Your task to perform on an android device: install app "AliExpress" Image 0: 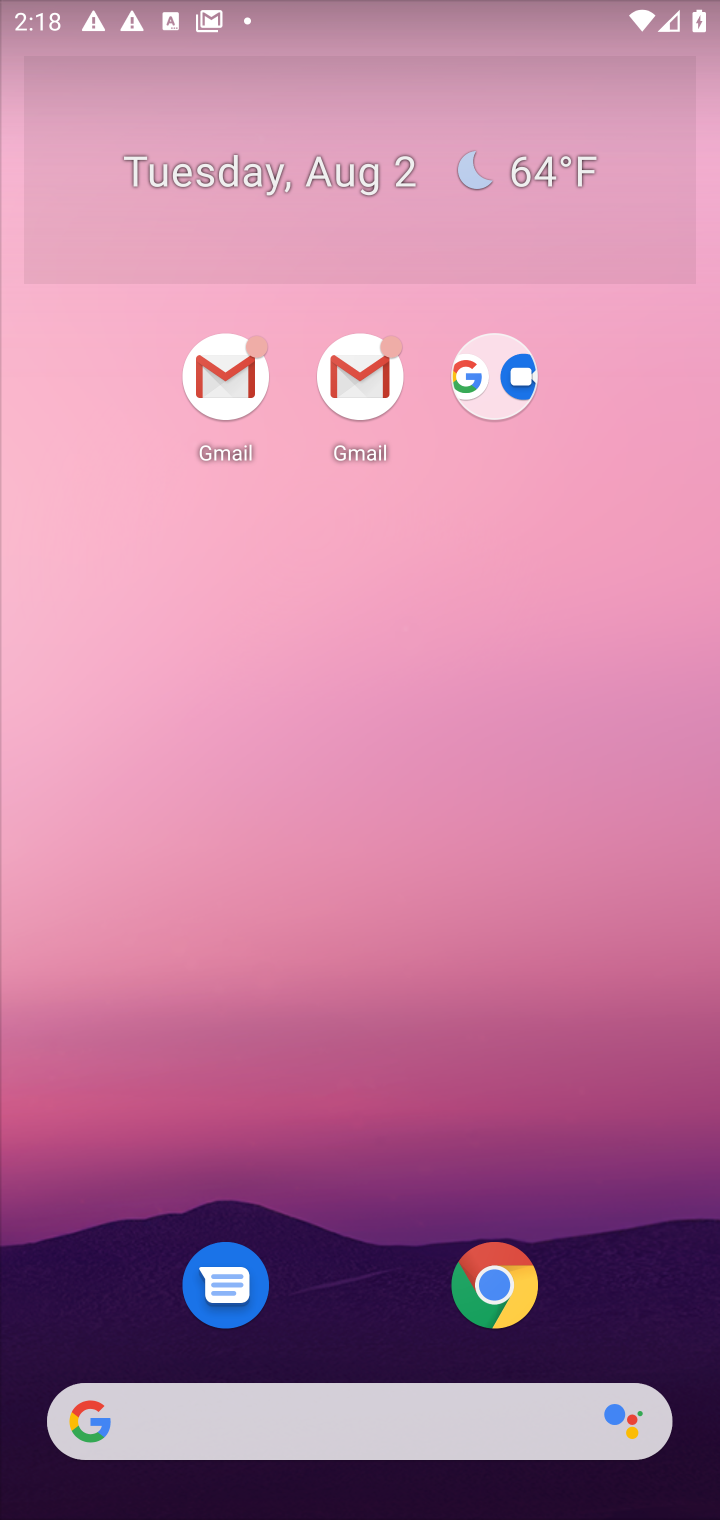
Step 0: drag from (623, 1266) to (546, 228)
Your task to perform on an android device: install app "AliExpress" Image 1: 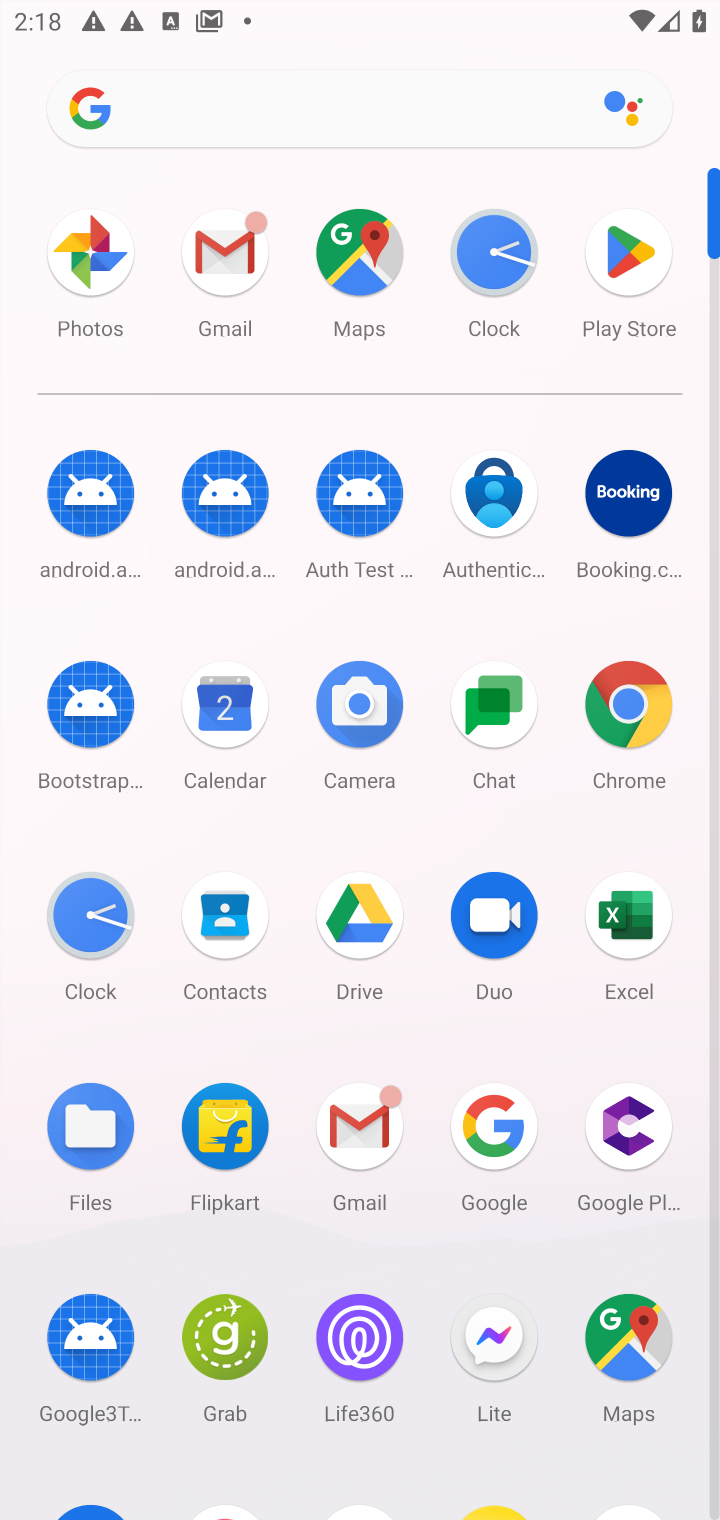
Step 1: drag from (421, 1081) to (437, 454)
Your task to perform on an android device: install app "AliExpress" Image 2: 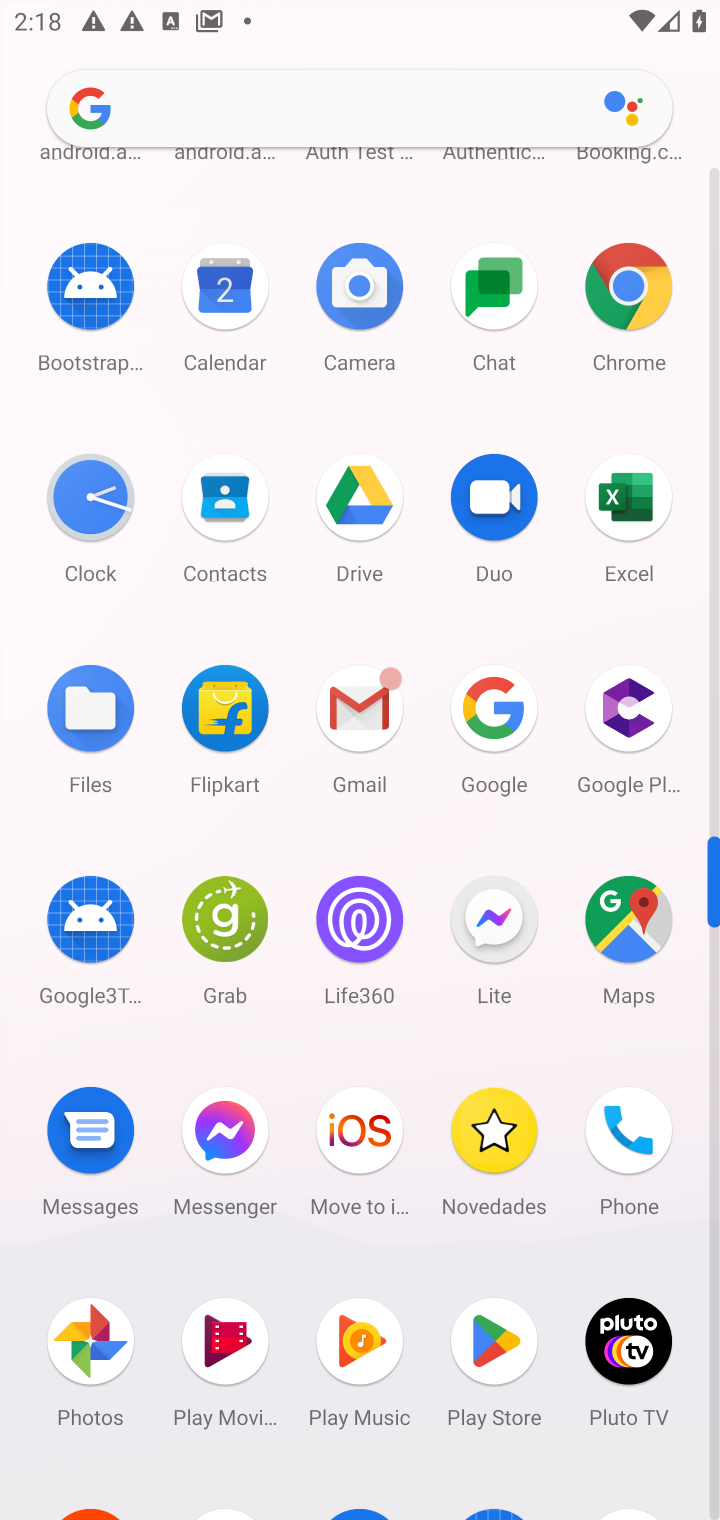
Step 2: click (493, 1339)
Your task to perform on an android device: install app "AliExpress" Image 3: 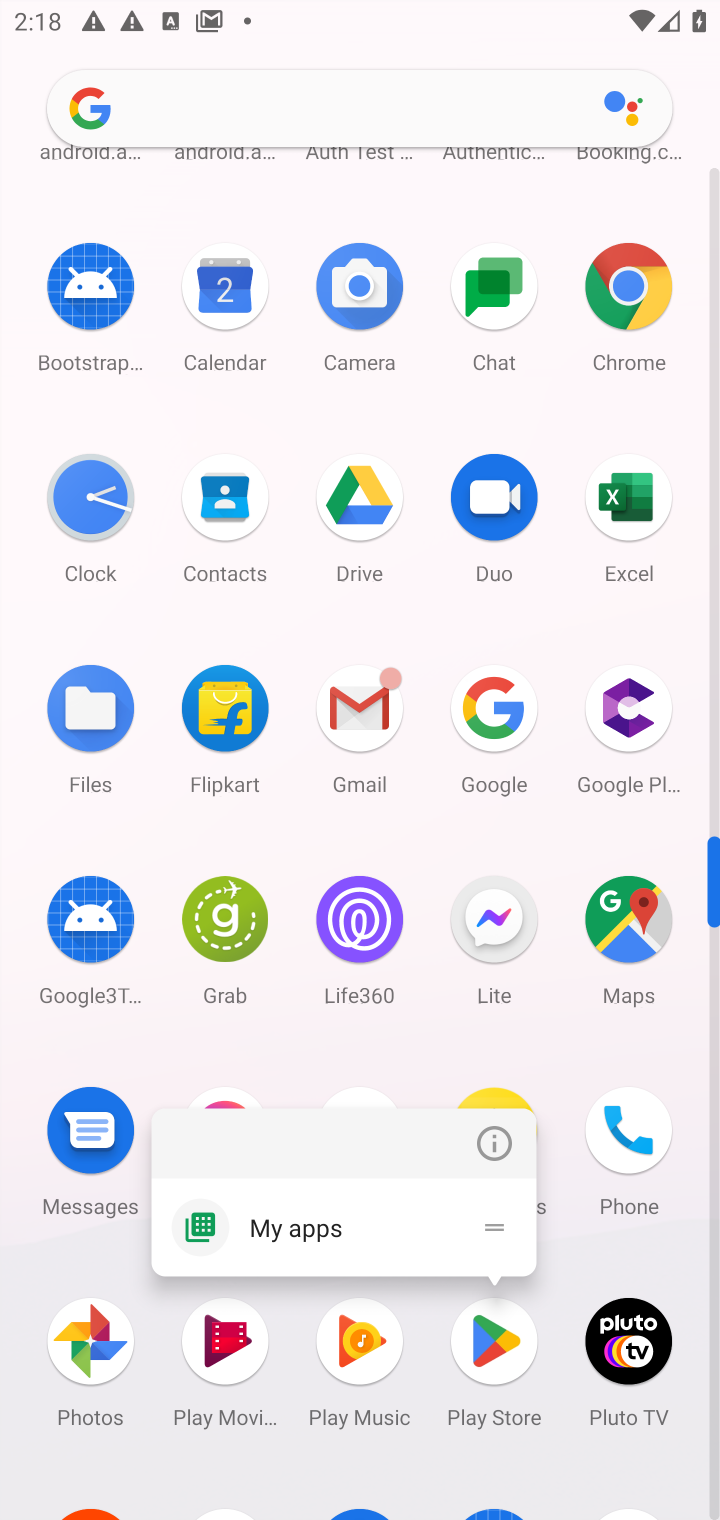
Step 3: click (493, 1339)
Your task to perform on an android device: install app "AliExpress" Image 4: 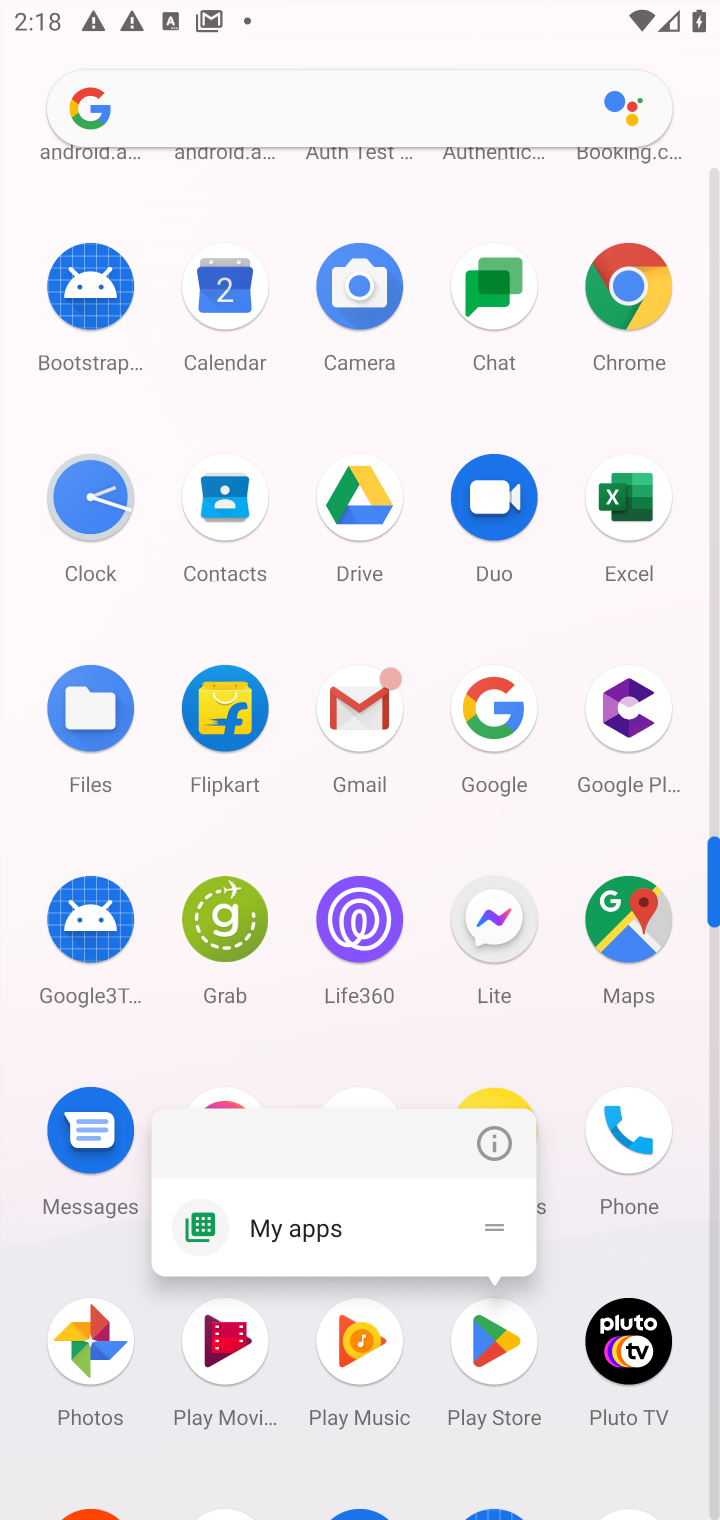
Step 4: click (493, 1339)
Your task to perform on an android device: install app "AliExpress" Image 5: 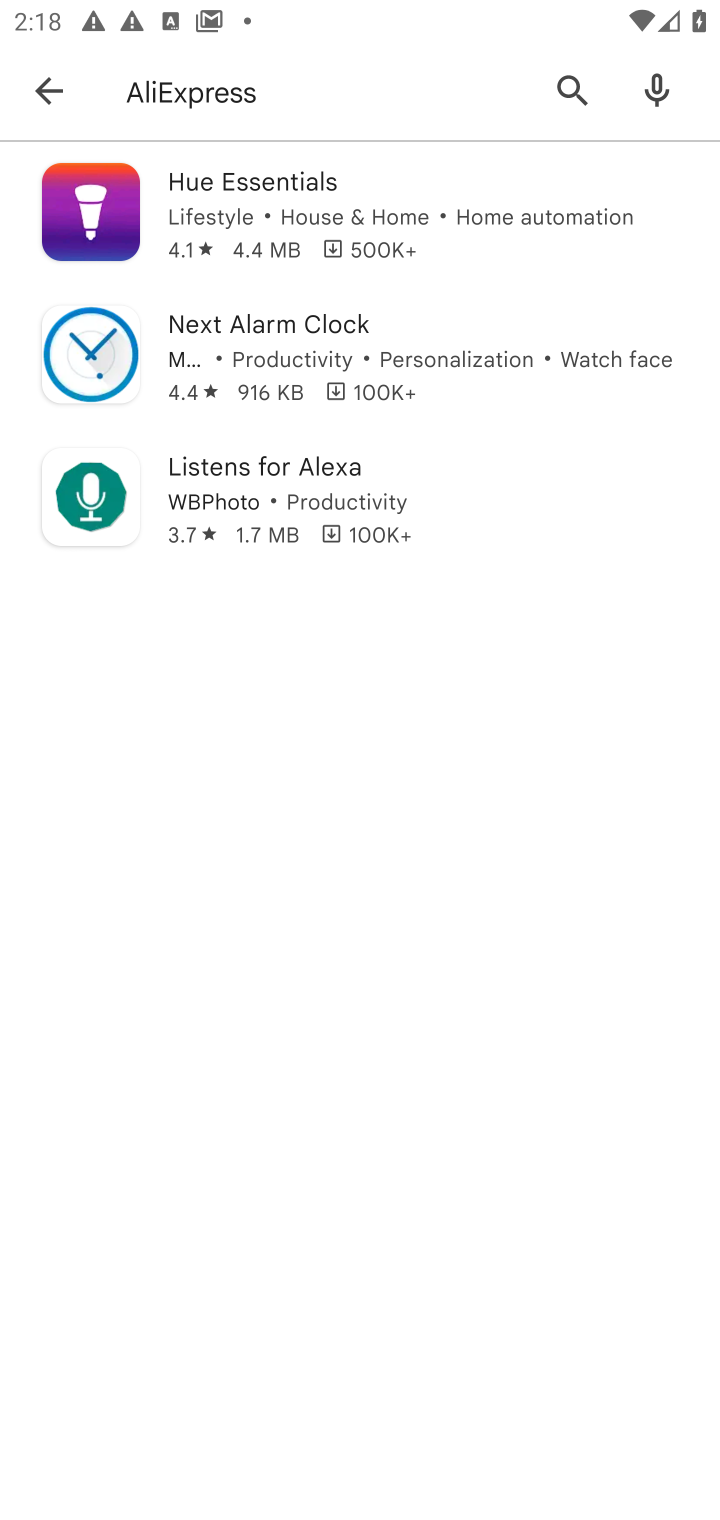
Step 5: click (383, 89)
Your task to perform on an android device: install app "AliExpress" Image 6: 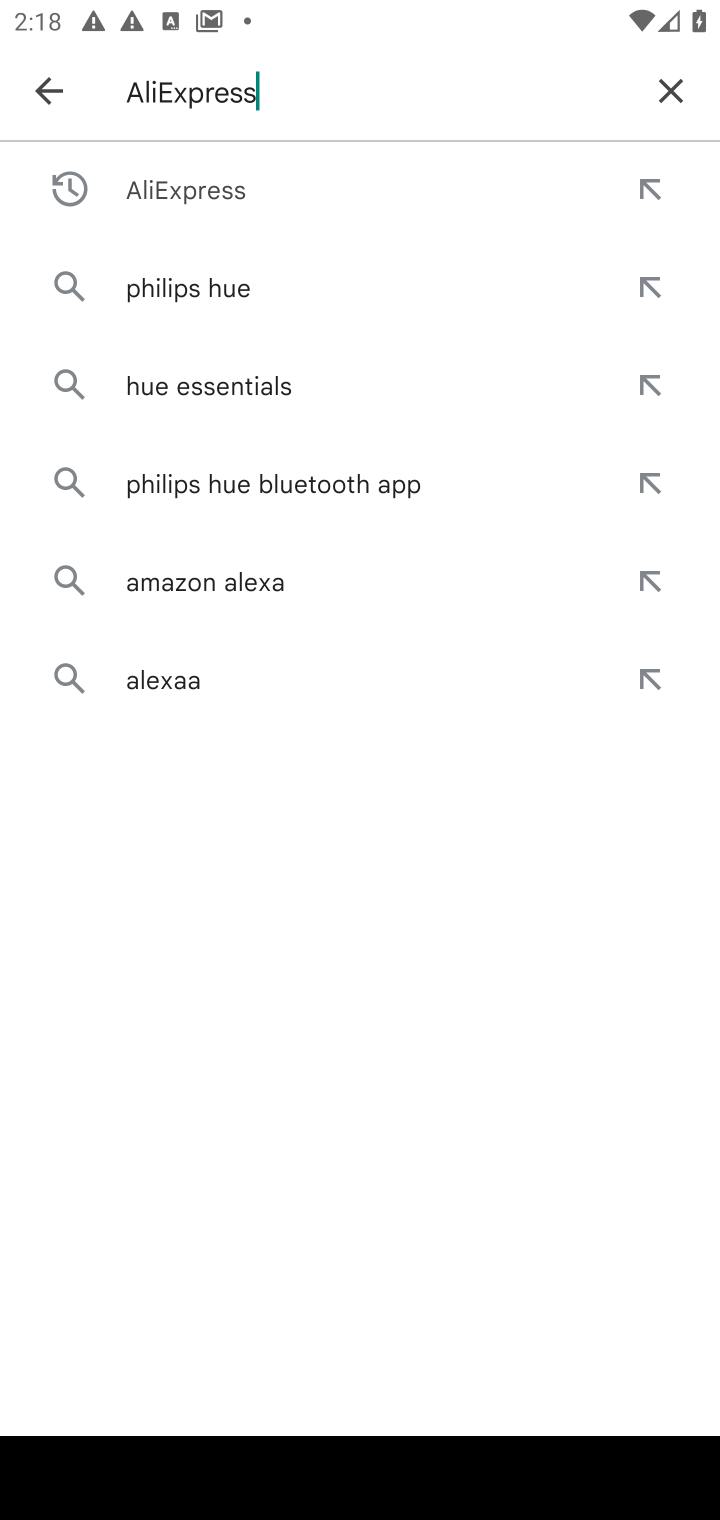
Step 6: click (670, 106)
Your task to perform on an android device: install app "AliExpress" Image 7: 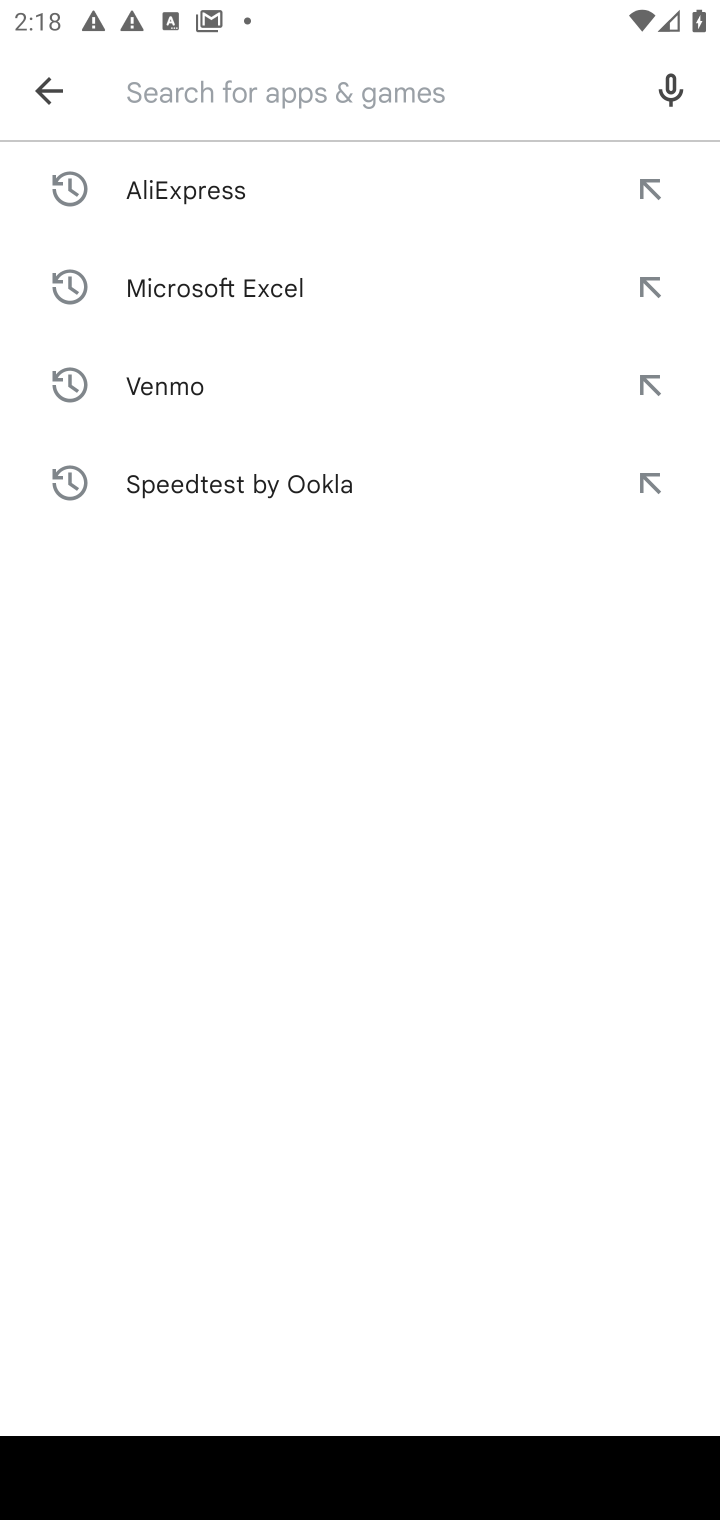
Step 7: type "AliExpress"
Your task to perform on an android device: install app "AliExpress" Image 8: 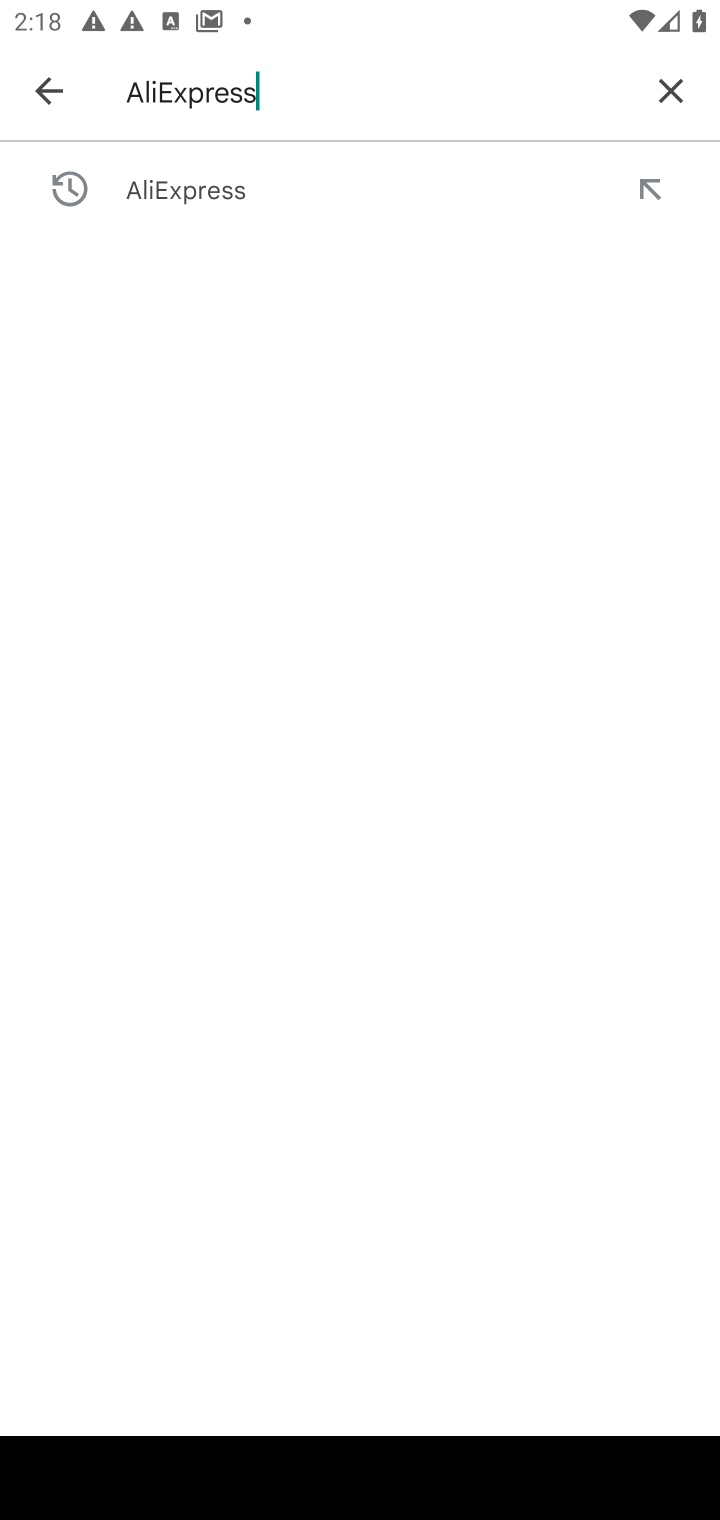
Step 8: press enter
Your task to perform on an android device: install app "AliExpress" Image 9: 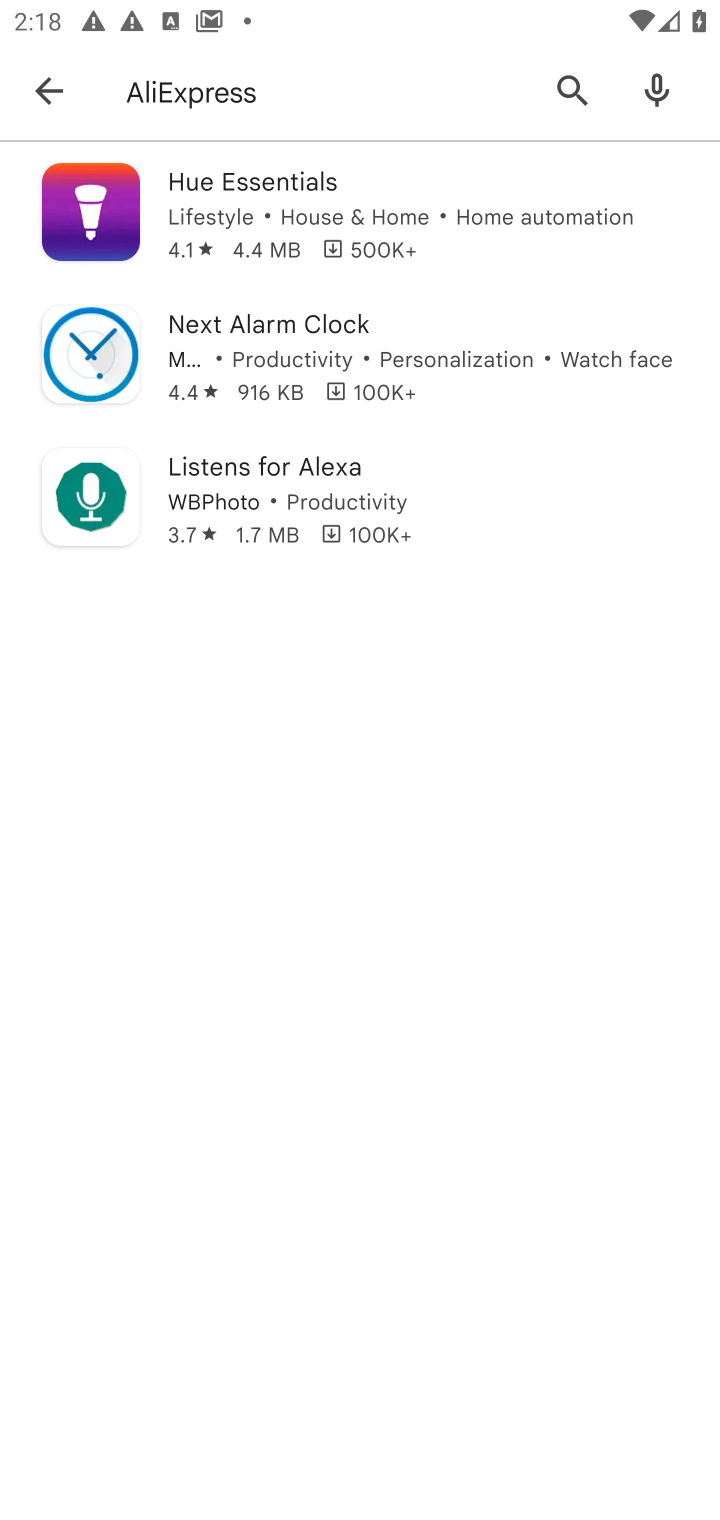
Step 9: task complete